Your task to perform on an android device: What is the news today? Image 0: 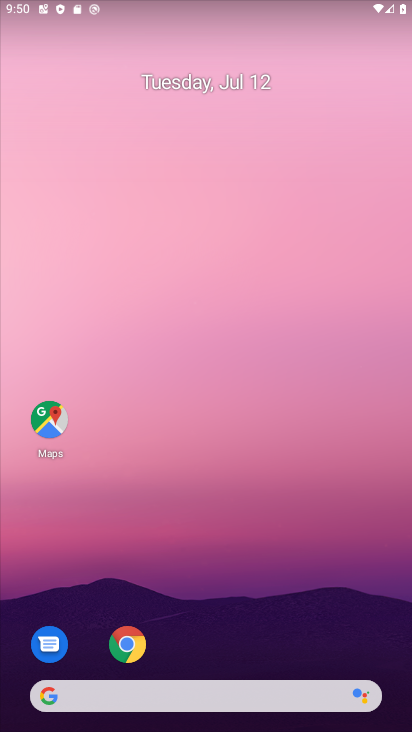
Step 0: click (268, 694)
Your task to perform on an android device: What is the news today? Image 1: 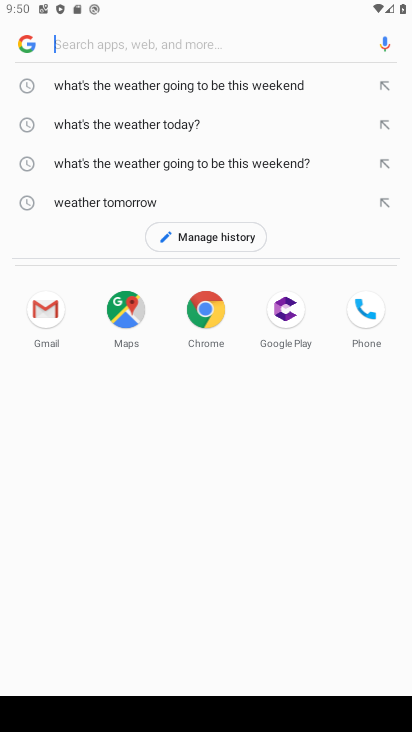
Step 1: type "news today"
Your task to perform on an android device: What is the news today? Image 2: 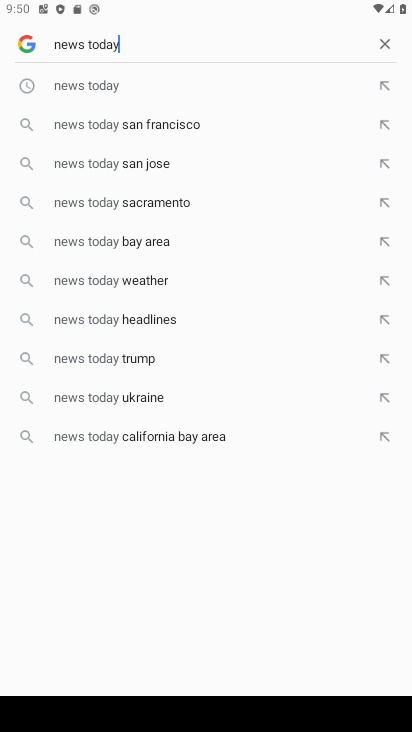
Step 2: click (259, 76)
Your task to perform on an android device: What is the news today? Image 3: 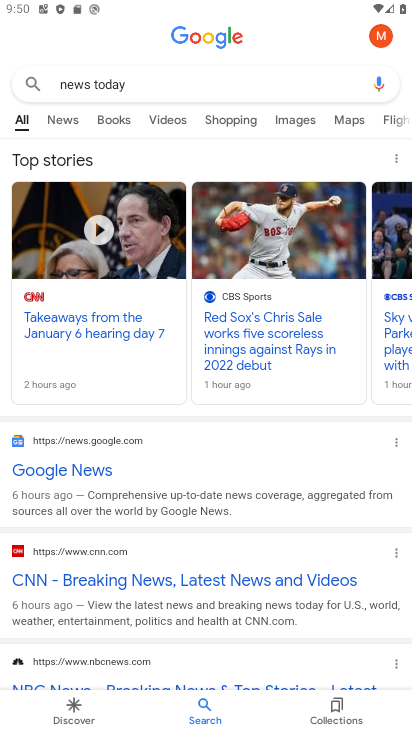
Step 3: task complete